Your task to perform on an android device: clear all cookies in the chrome app Image 0: 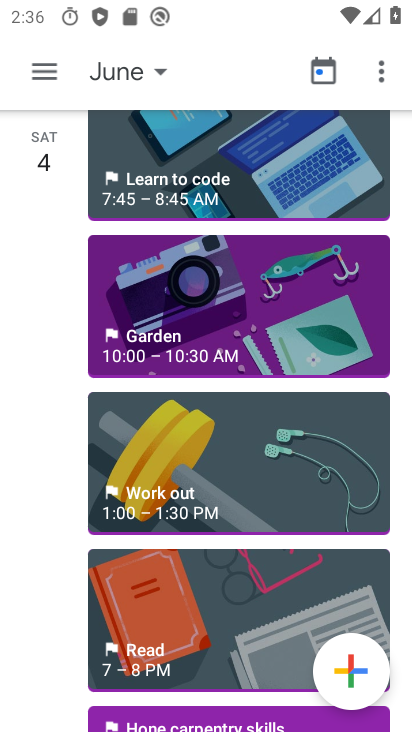
Step 0: press home button
Your task to perform on an android device: clear all cookies in the chrome app Image 1: 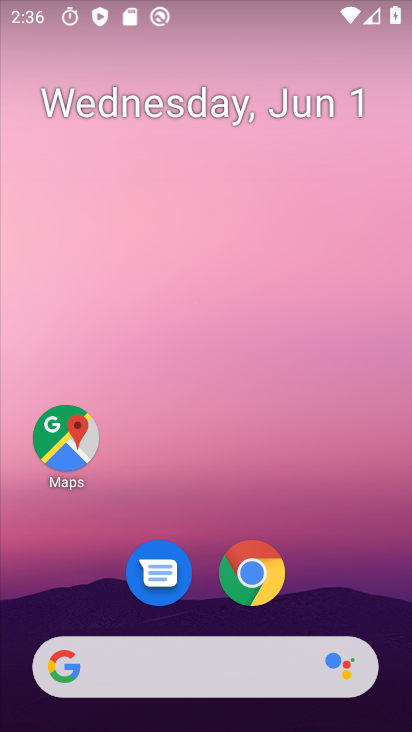
Step 1: click (248, 577)
Your task to perform on an android device: clear all cookies in the chrome app Image 2: 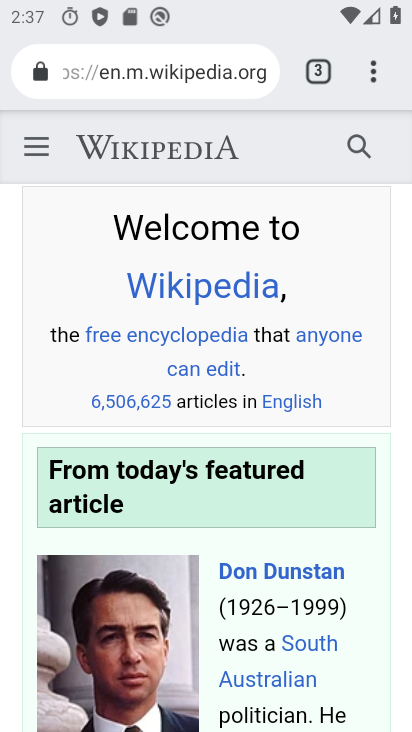
Step 2: drag from (376, 77) to (136, 380)
Your task to perform on an android device: clear all cookies in the chrome app Image 3: 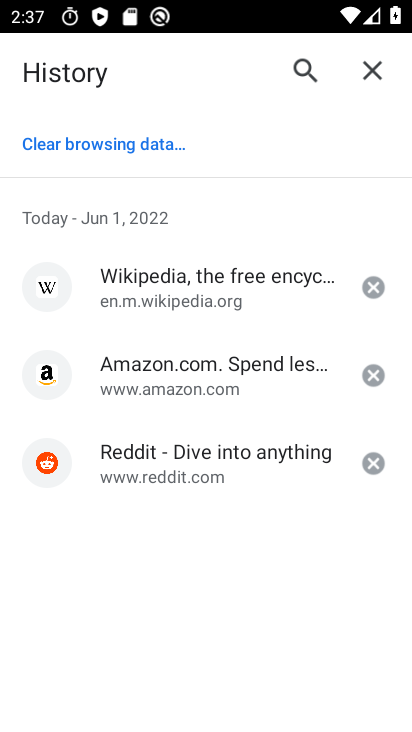
Step 3: click (76, 150)
Your task to perform on an android device: clear all cookies in the chrome app Image 4: 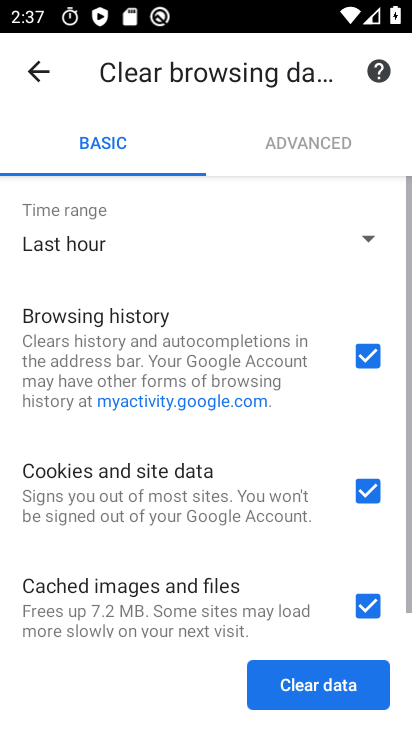
Step 4: click (342, 690)
Your task to perform on an android device: clear all cookies in the chrome app Image 5: 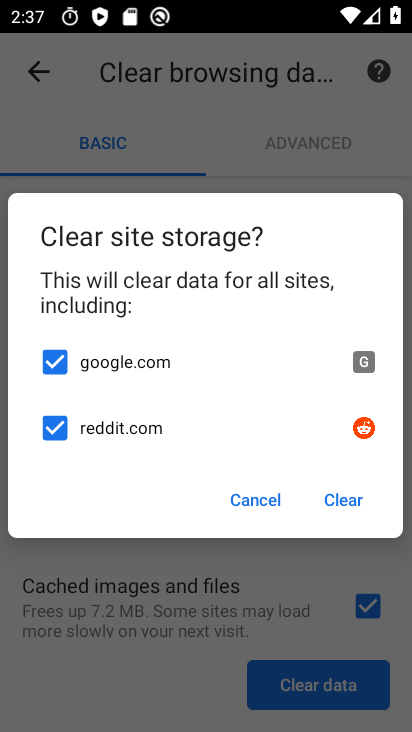
Step 5: click (356, 491)
Your task to perform on an android device: clear all cookies in the chrome app Image 6: 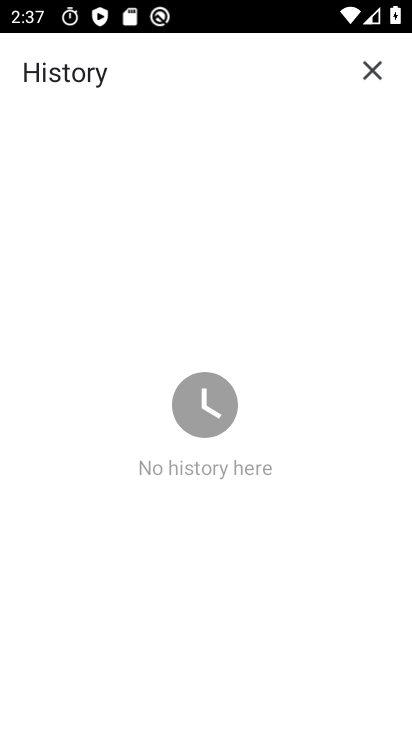
Step 6: task complete